Your task to perform on an android device: Go to wifi settings Image 0: 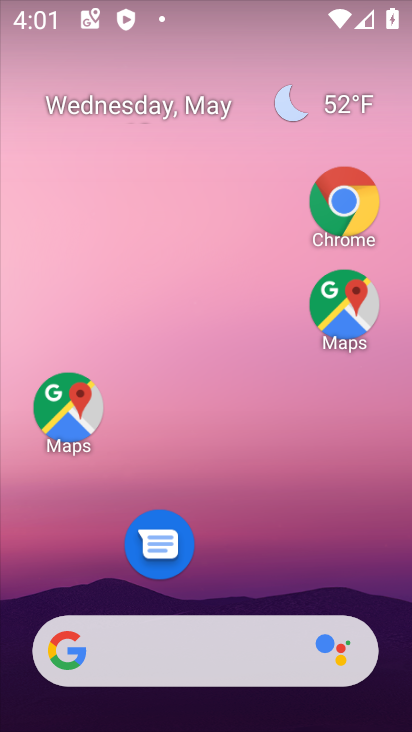
Step 0: drag from (231, 493) to (211, 127)
Your task to perform on an android device: Go to wifi settings Image 1: 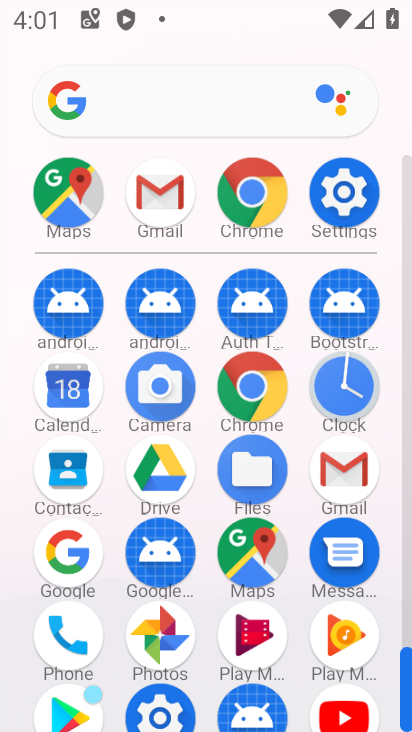
Step 1: click (344, 197)
Your task to perform on an android device: Go to wifi settings Image 2: 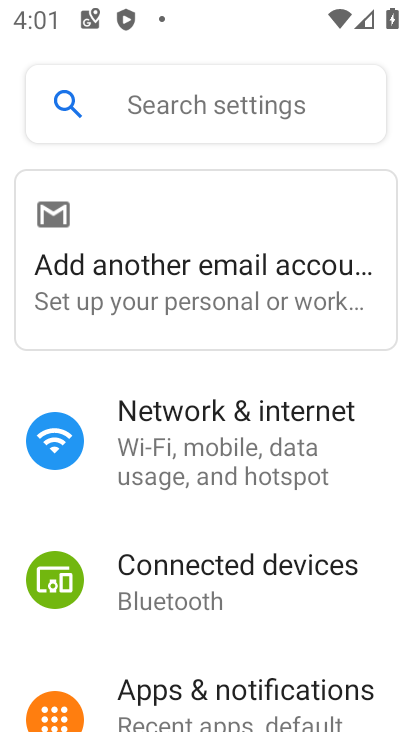
Step 2: click (200, 463)
Your task to perform on an android device: Go to wifi settings Image 3: 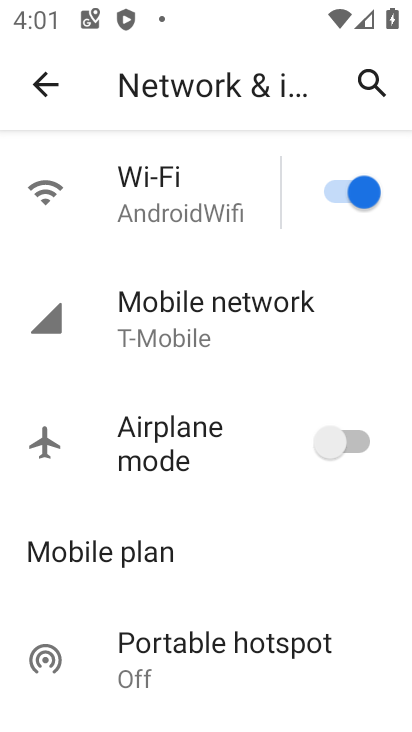
Step 3: task complete